Your task to perform on an android device: turn on priority inbox in the gmail app Image 0: 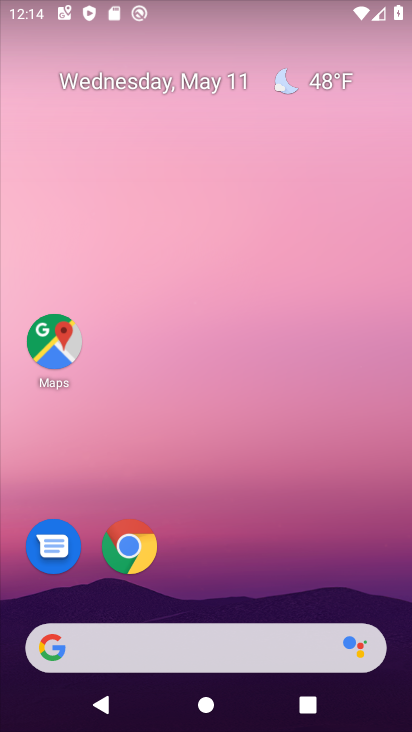
Step 0: drag from (224, 637) to (358, 75)
Your task to perform on an android device: turn on priority inbox in the gmail app Image 1: 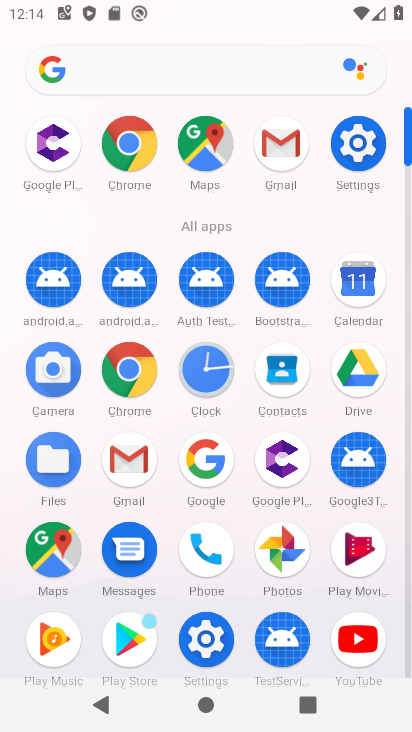
Step 1: click (273, 162)
Your task to perform on an android device: turn on priority inbox in the gmail app Image 2: 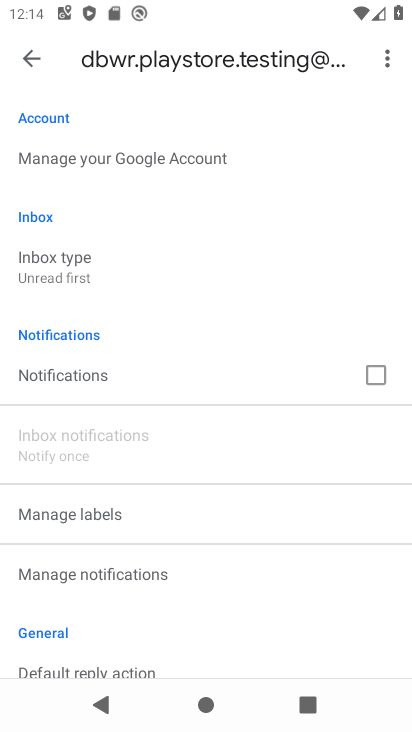
Step 2: click (66, 272)
Your task to perform on an android device: turn on priority inbox in the gmail app Image 3: 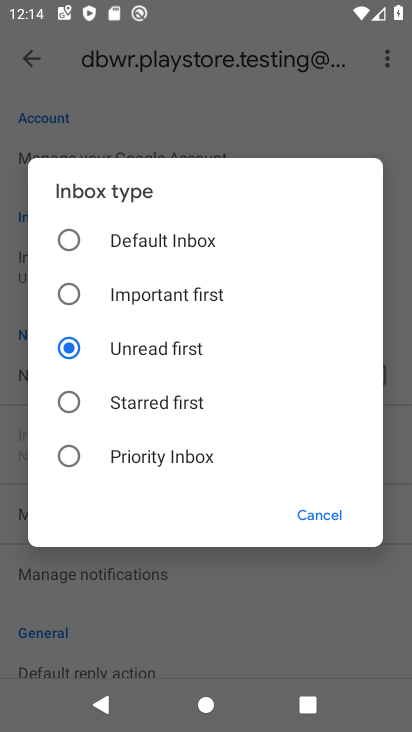
Step 3: click (67, 457)
Your task to perform on an android device: turn on priority inbox in the gmail app Image 4: 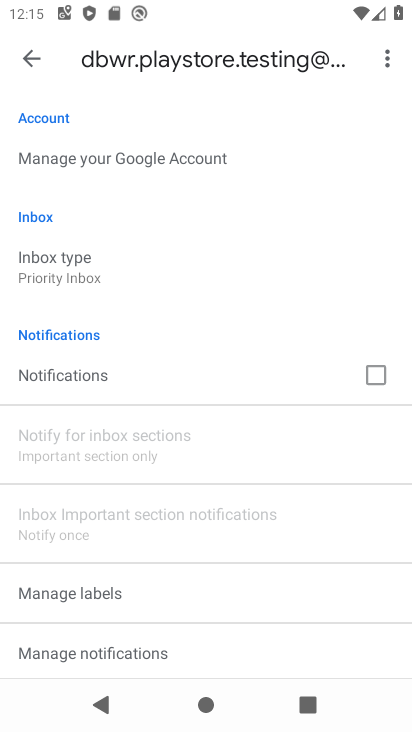
Step 4: task complete